Your task to perform on an android device: Open ESPN.com Image 0: 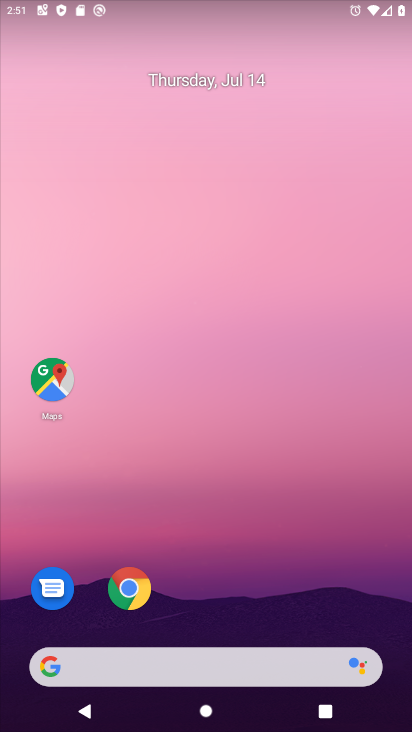
Step 0: drag from (247, 560) to (235, 183)
Your task to perform on an android device: Open ESPN.com Image 1: 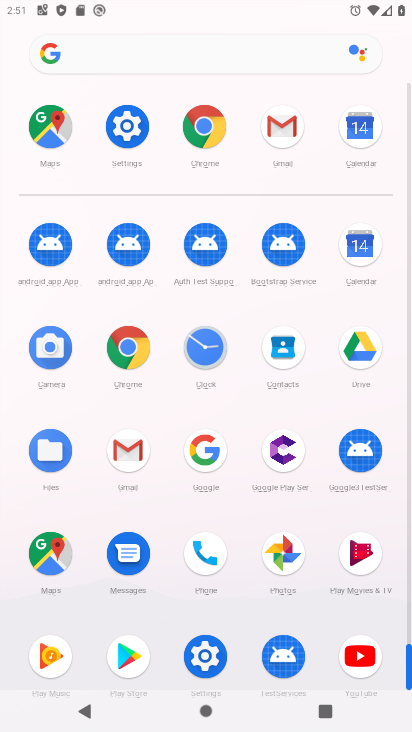
Step 1: click (211, 116)
Your task to perform on an android device: Open ESPN.com Image 2: 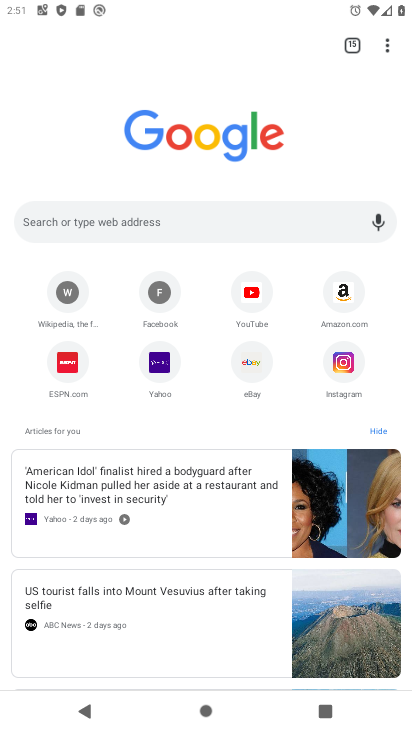
Step 2: click (67, 363)
Your task to perform on an android device: Open ESPN.com Image 3: 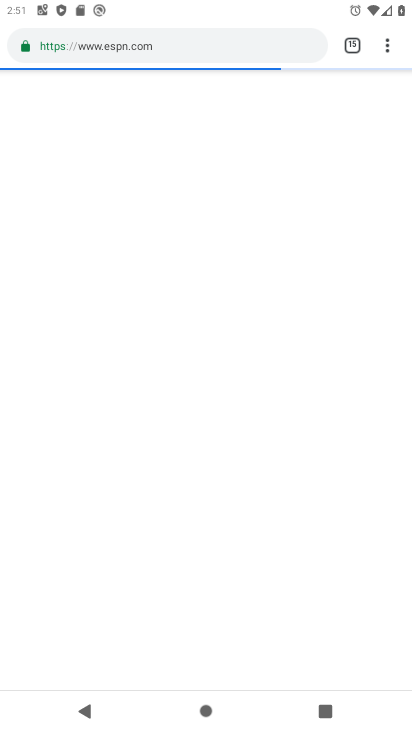
Step 3: task complete